Your task to perform on an android device: Open the web browser Image 0: 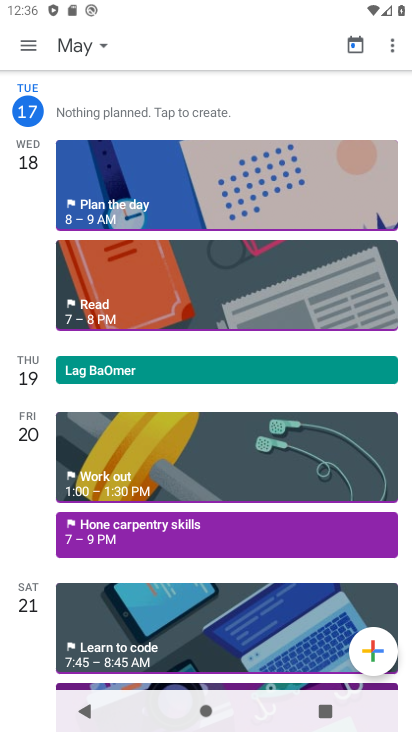
Step 0: press home button
Your task to perform on an android device: Open the web browser Image 1: 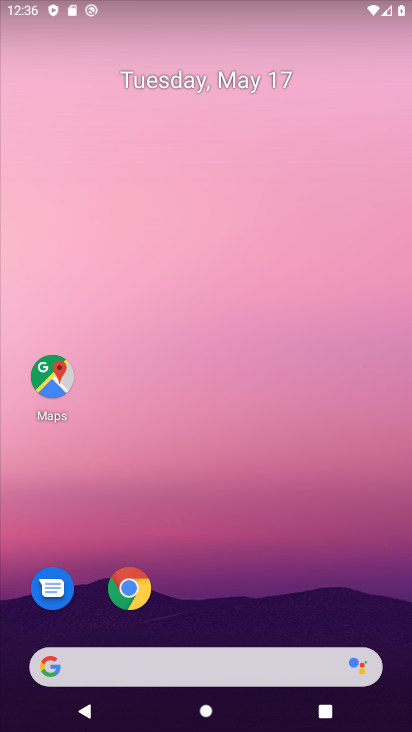
Step 1: drag from (182, 619) to (253, 154)
Your task to perform on an android device: Open the web browser Image 2: 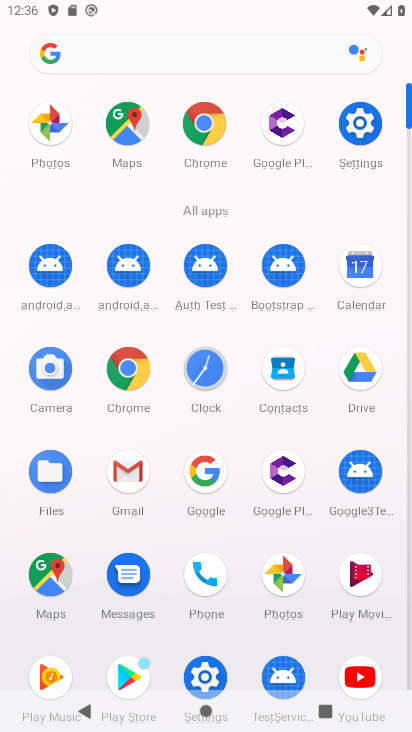
Step 2: click (204, 490)
Your task to perform on an android device: Open the web browser Image 3: 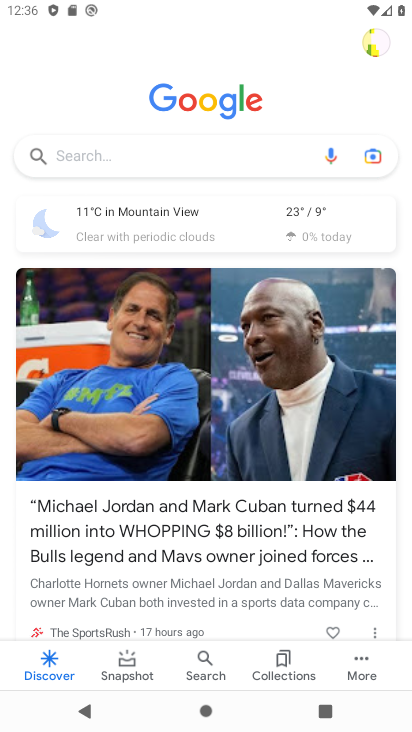
Step 3: task complete